Your task to perform on an android device: Clear the cart on amazon. Add logitech g933 to the cart on amazon, then select checkout. Image 0: 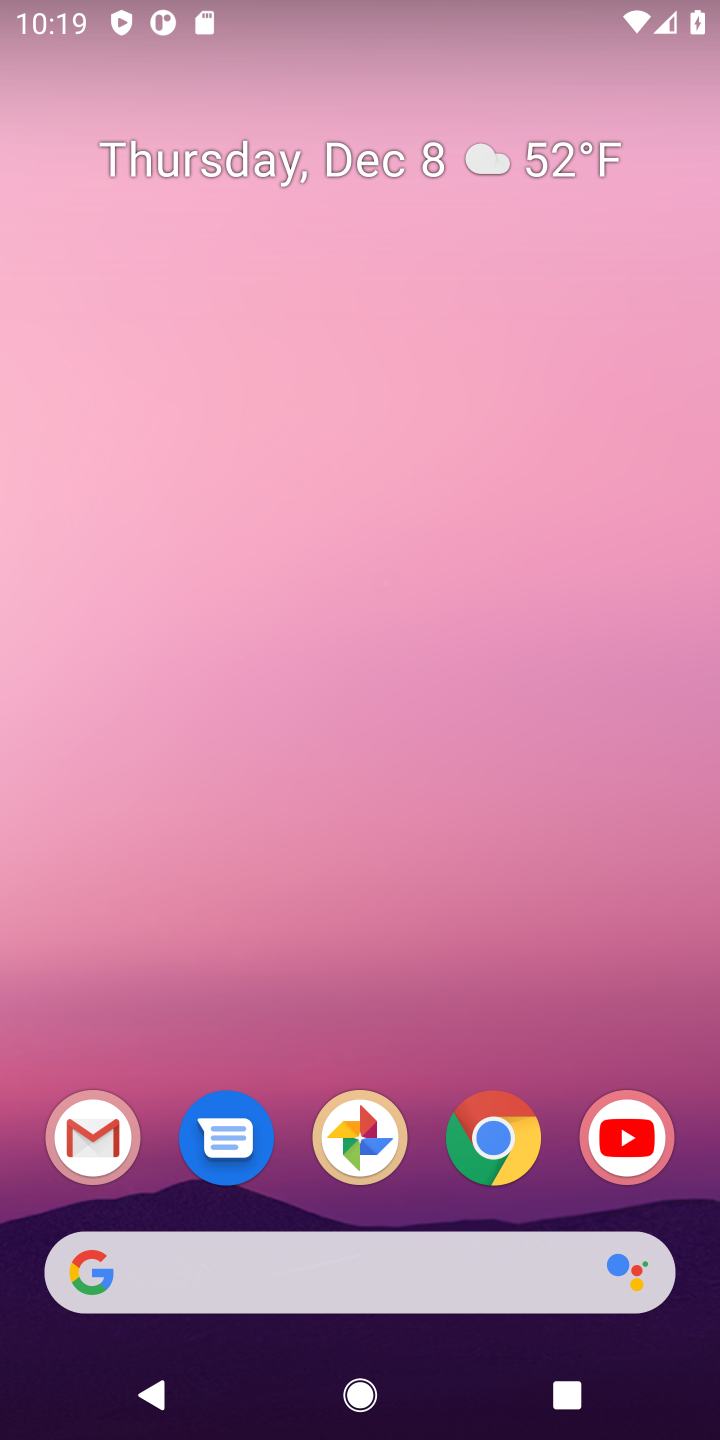
Step 0: click (508, 1119)
Your task to perform on an android device: Clear the cart on amazon. Add logitech g933 to the cart on amazon, then select checkout. Image 1: 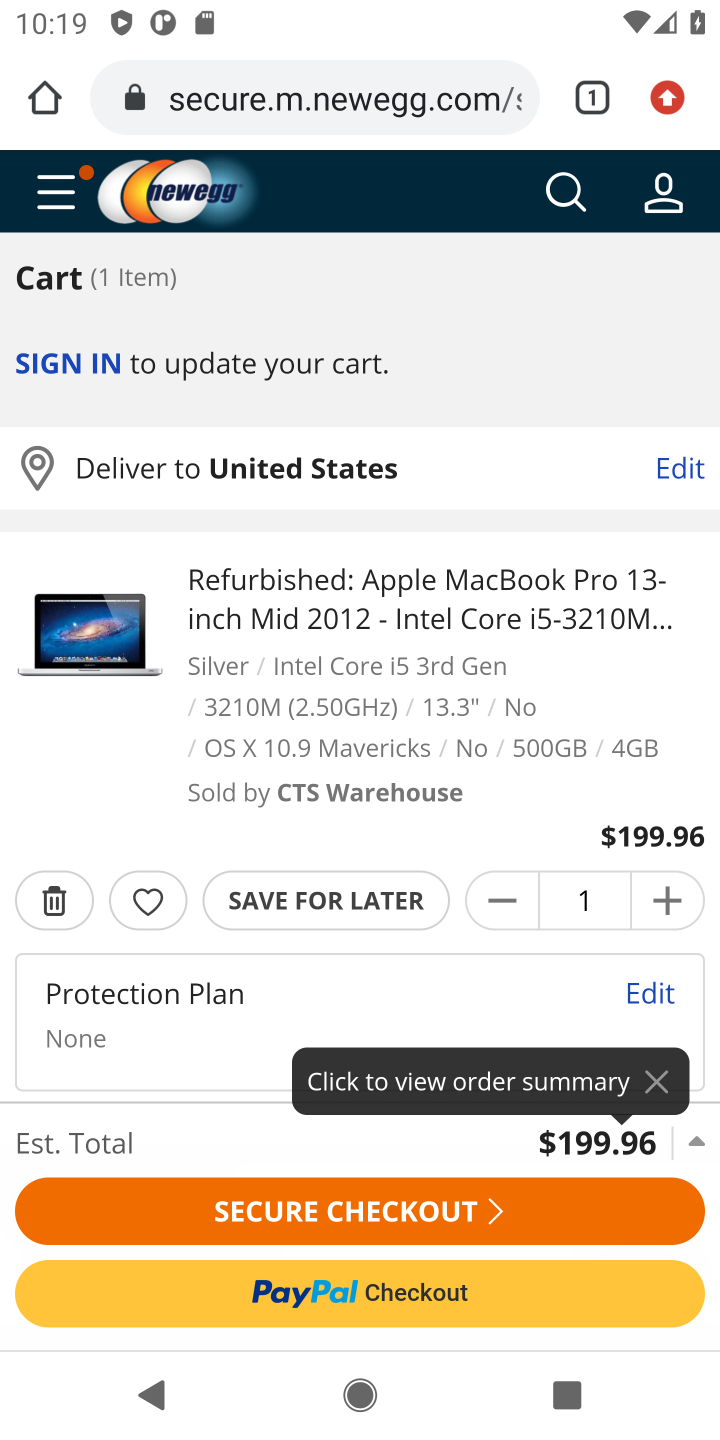
Step 1: click (325, 94)
Your task to perform on an android device: Clear the cart on amazon. Add logitech g933 to the cart on amazon, then select checkout. Image 2: 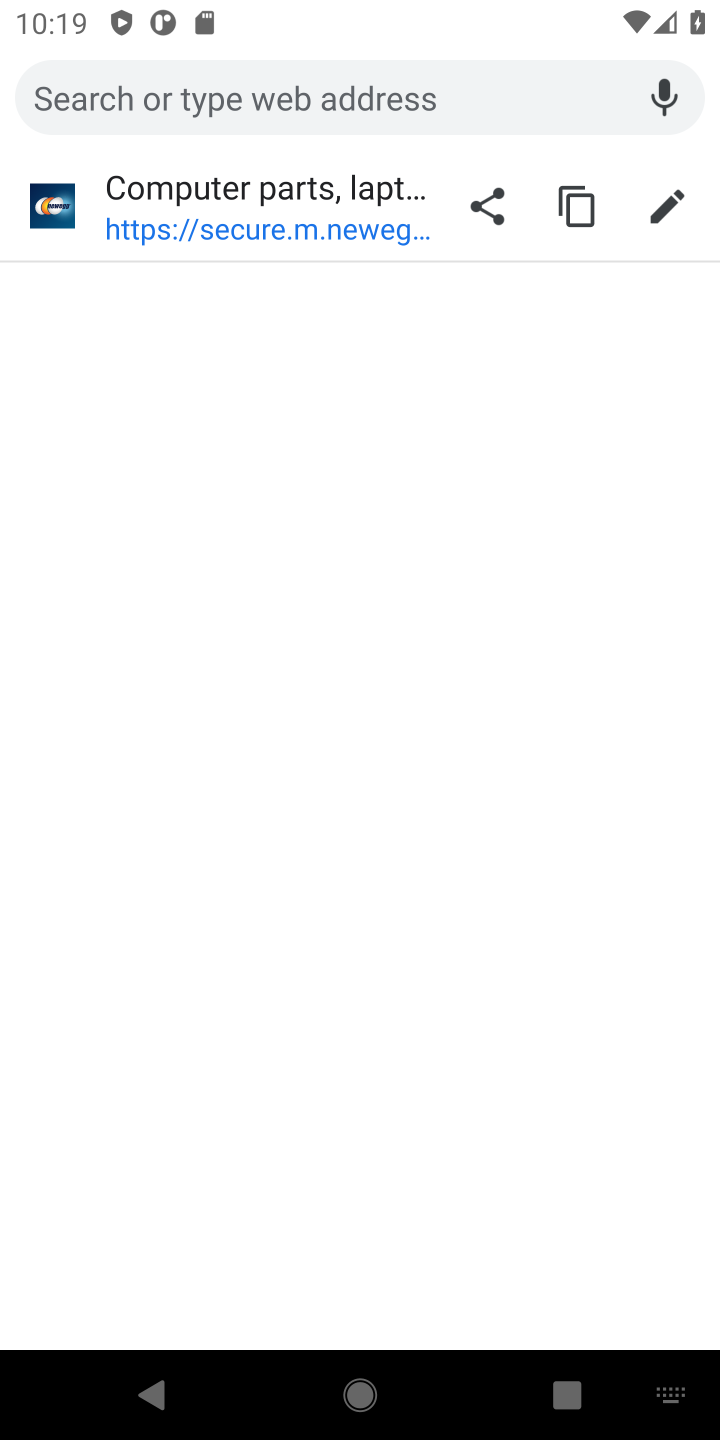
Step 2: type "amazon"
Your task to perform on an android device: Clear the cart on amazon. Add logitech g933 to the cart on amazon, then select checkout. Image 3: 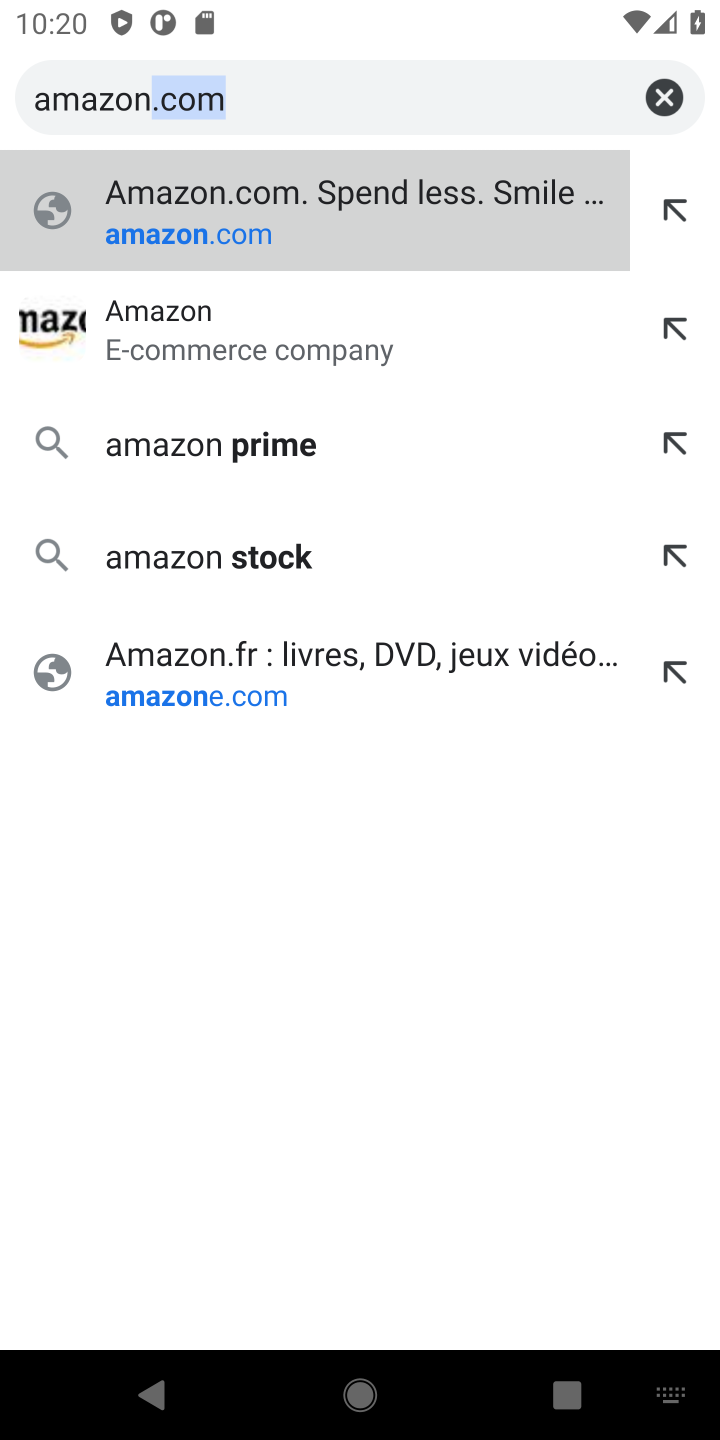
Step 3: click (315, 96)
Your task to perform on an android device: Clear the cart on amazon. Add logitech g933 to the cart on amazon, then select checkout. Image 4: 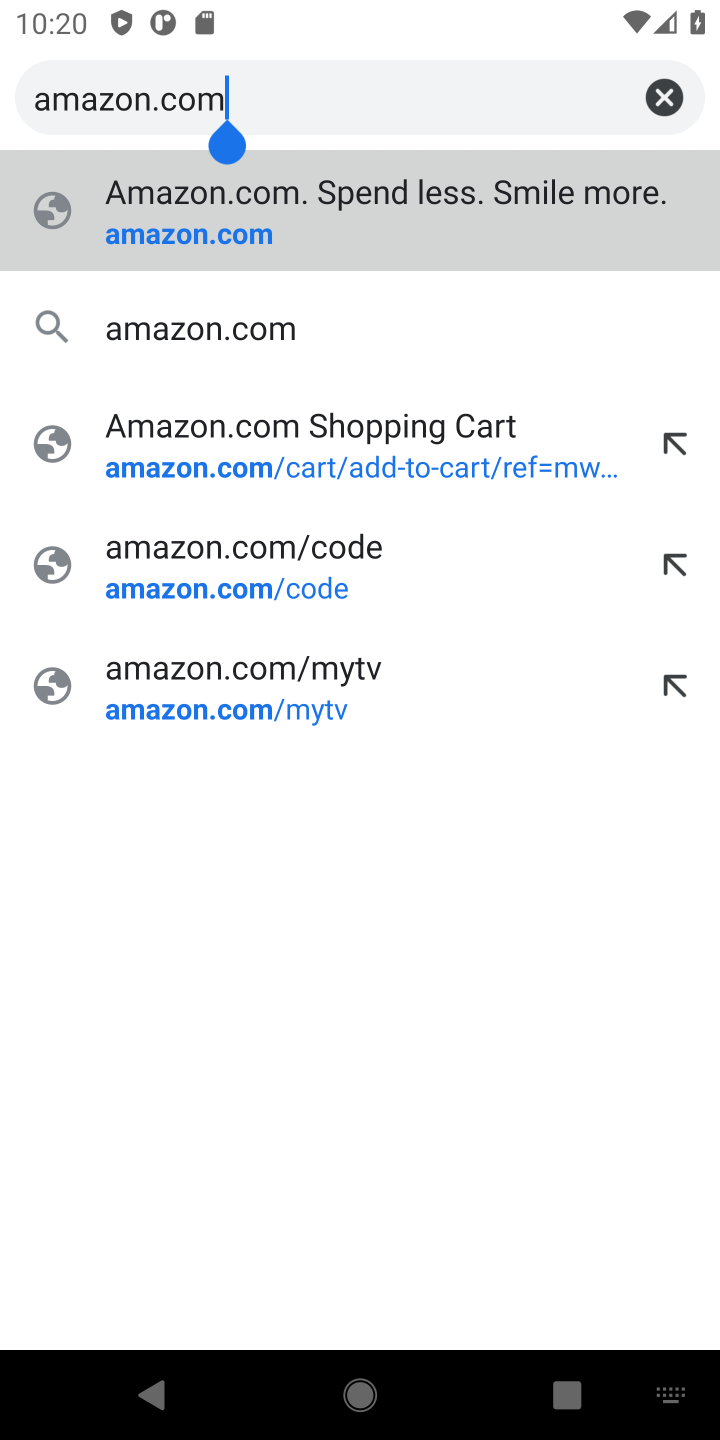
Step 4: click (266, 328)
Your task to perform on an android device: Clear the cart on amazon. Add logitech g933 to the cart on amazon, then select checkout. Image 5: 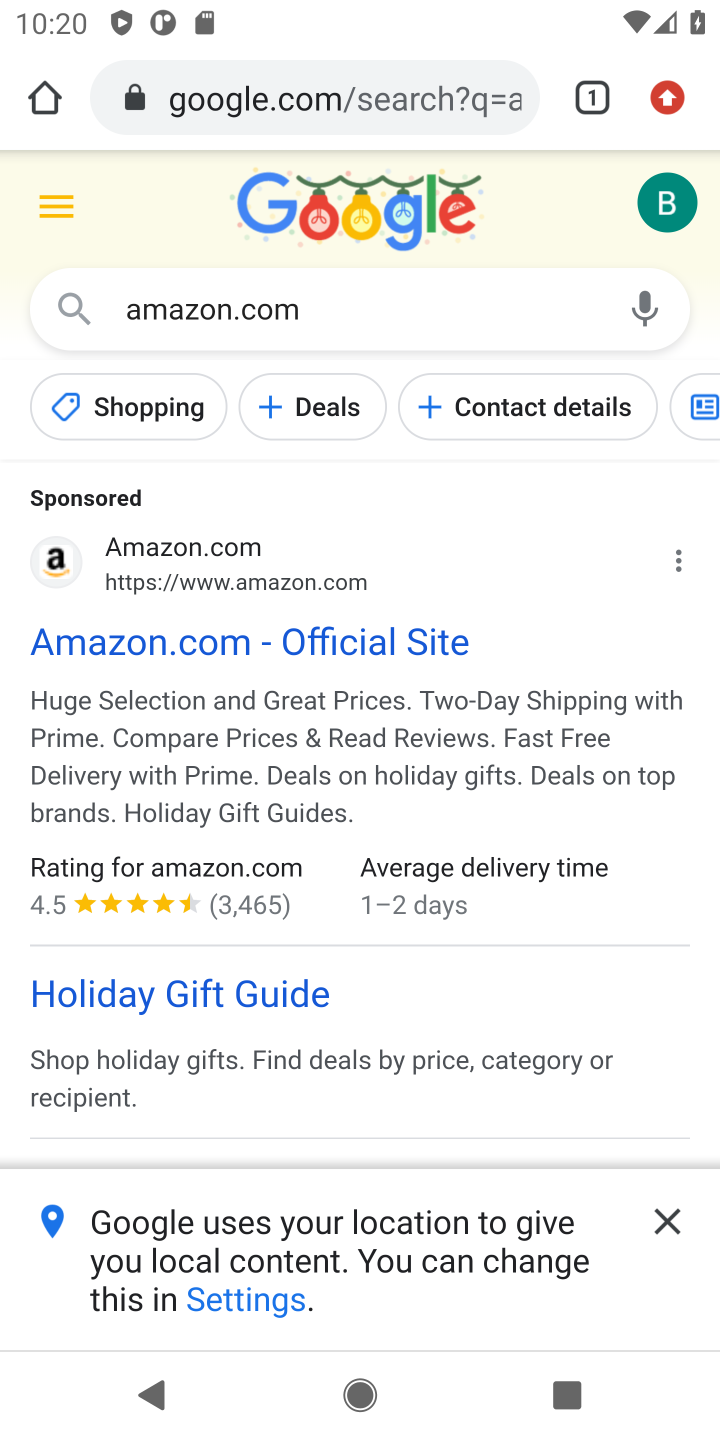
Step 5: drag from (416, 1048) to (463, 291)
Your task to perform on an android device: Clear the cart on amazon. Add logitech g933 to the cart on amazon, then select checkout. Image 6: 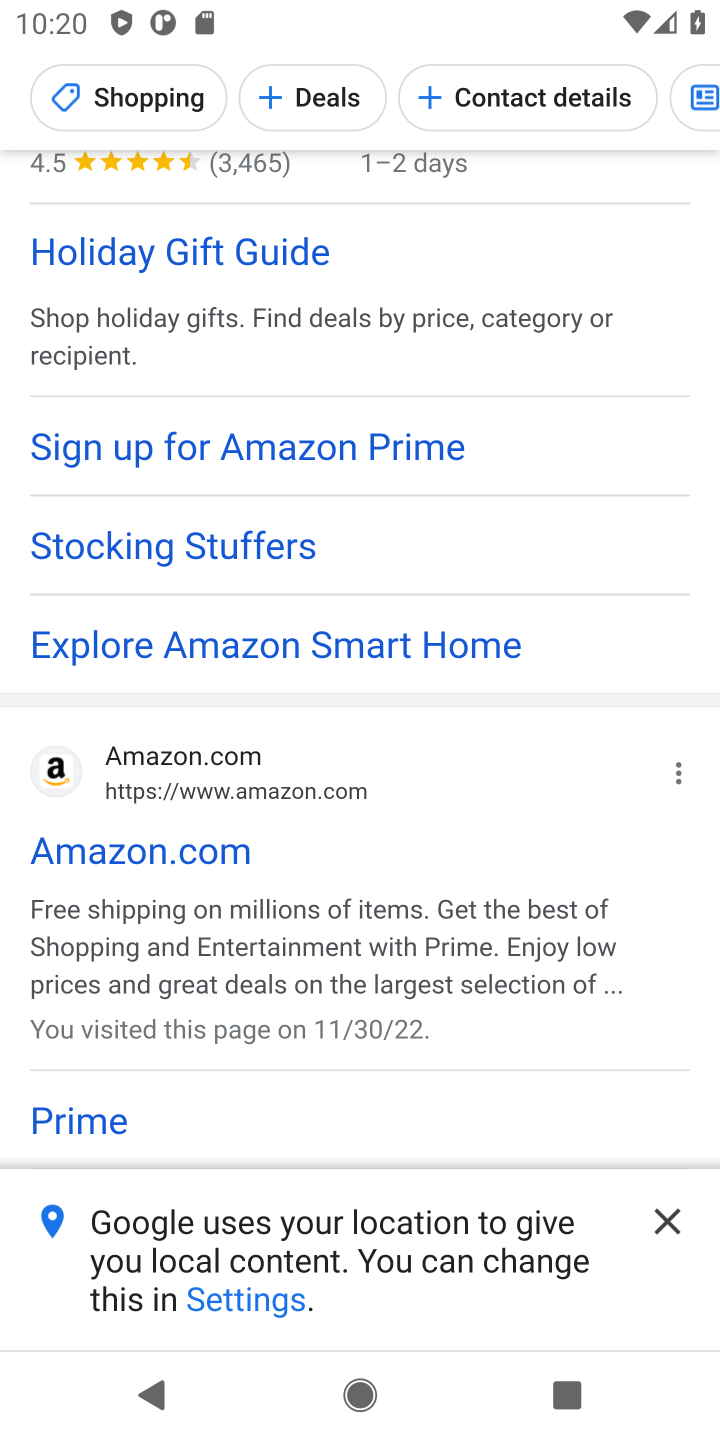
Step 6: click (263, 783)
Your task to perform on an android device: Clear the cart on amazon. Add logitech g933 to the cart on amazon, then select checkout. Image 7: 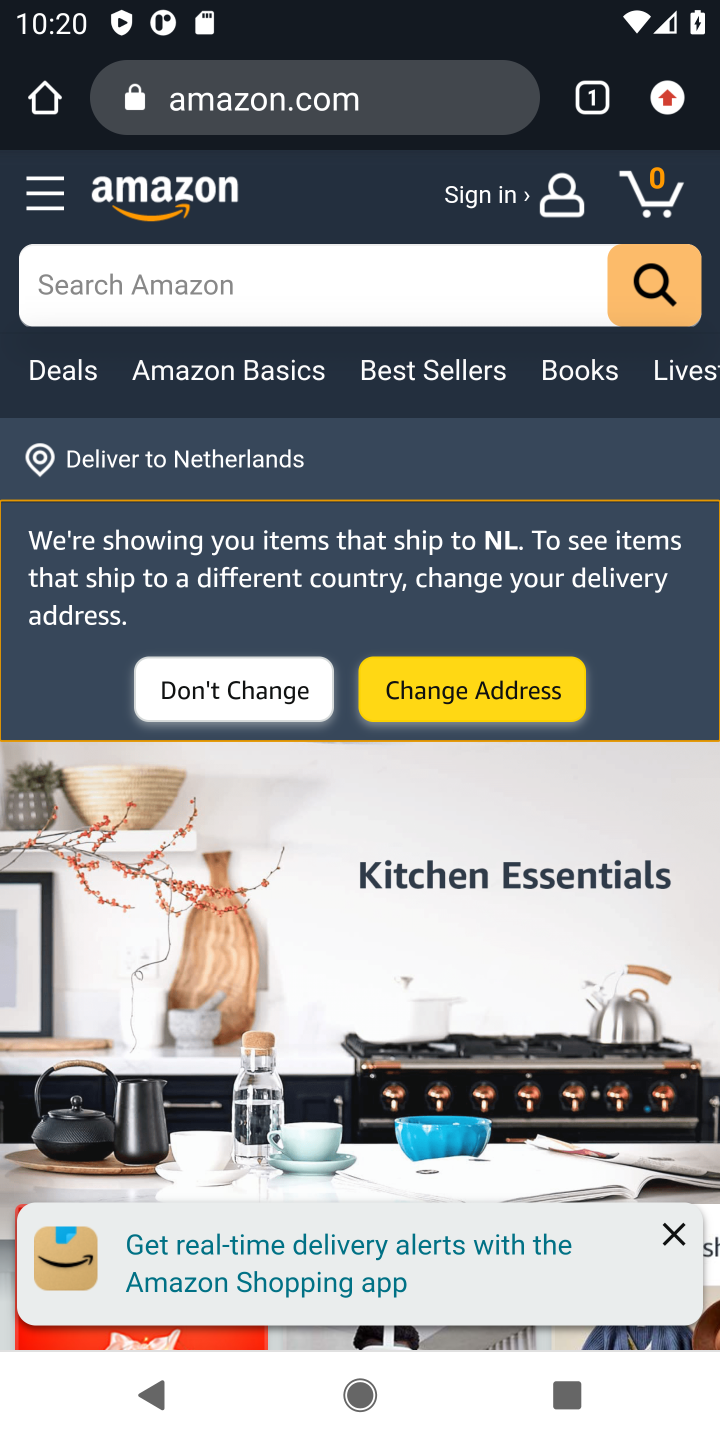
Step 7: click (539, 283)
Your task to perform on an android device: Clear the cart on amazon. Add logitech g933 to the cart on amazon, then select checkout. Image 8: 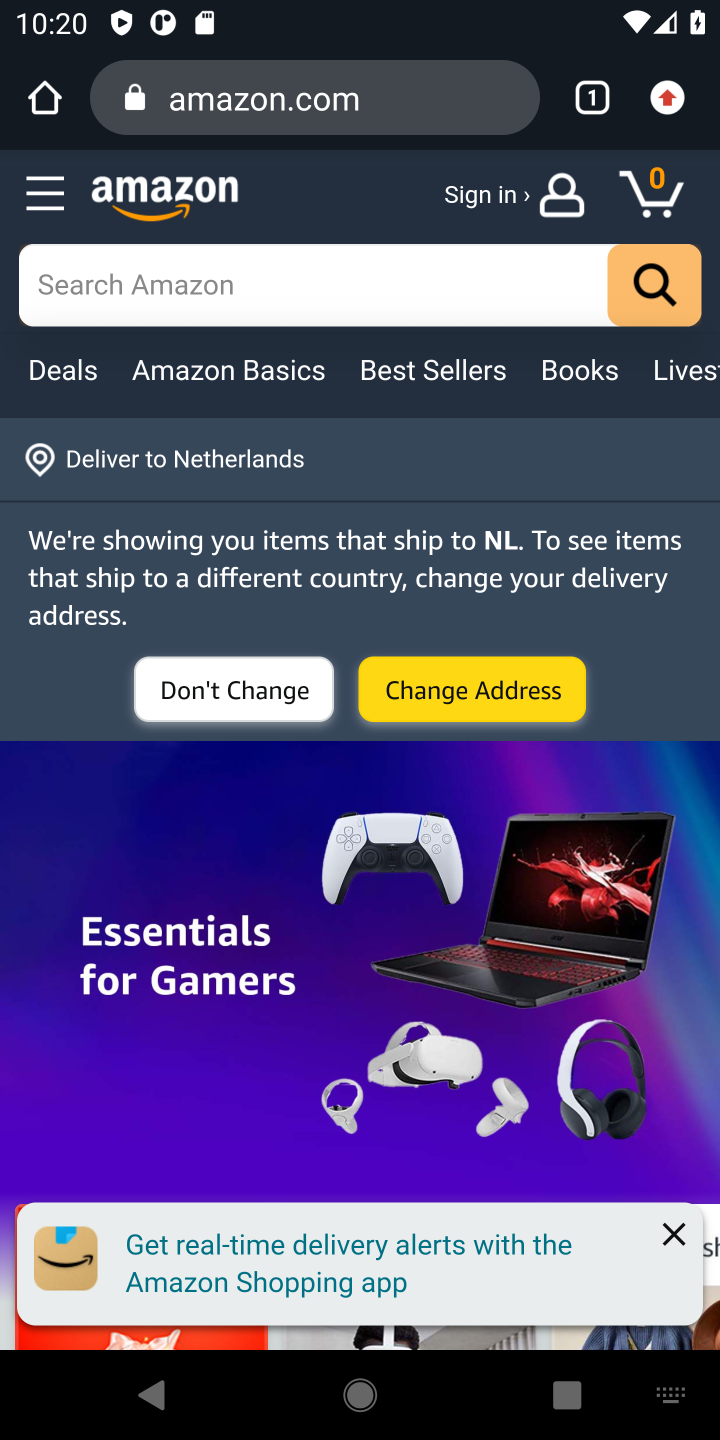
Step 8: type "logitech g933"
Your task to perform on an android device: Clear the cart on amazon. Add logitech g933 to the cart on amazon, then select checkout. Image 9: 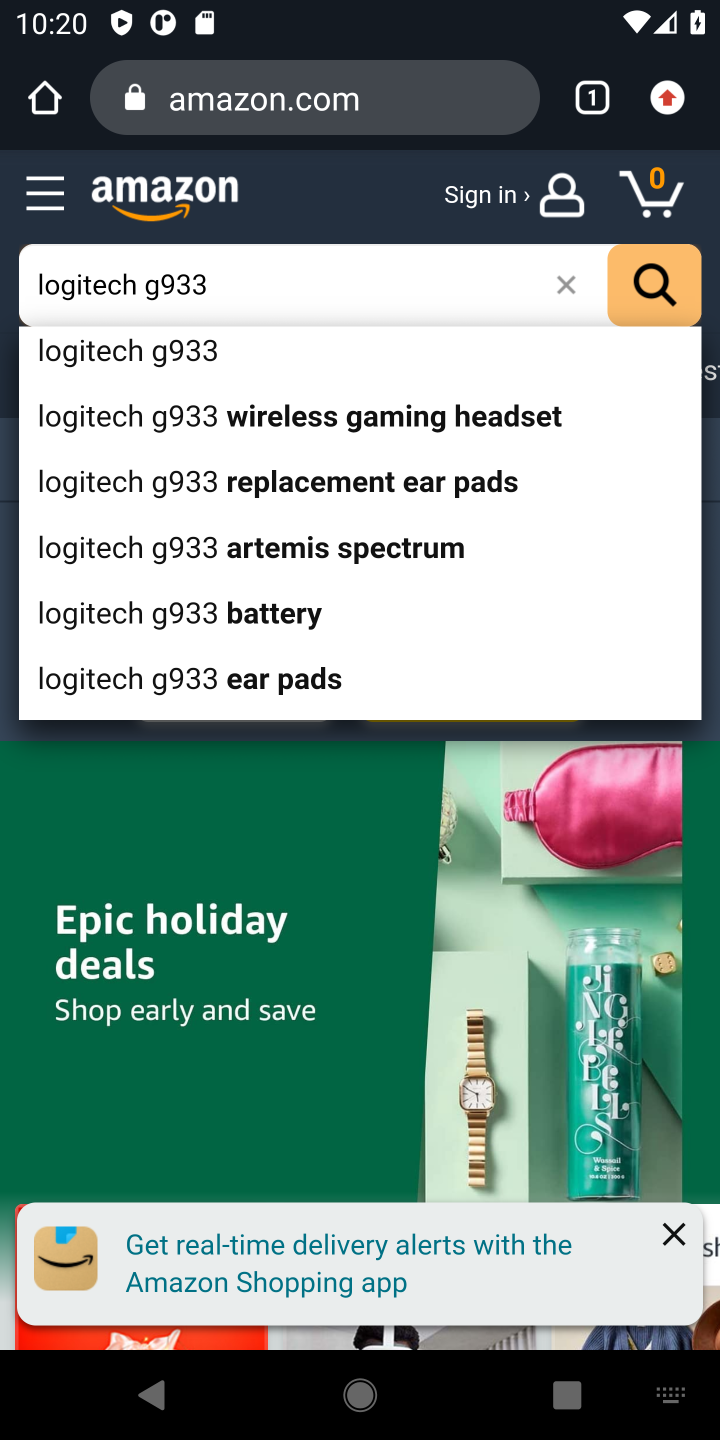
Step 9: click (198, 356)
Your task to perform on an android device: Clear the cart on amazon. Add logitech g933 to the cart on amazon, then select checkout. Image 10: 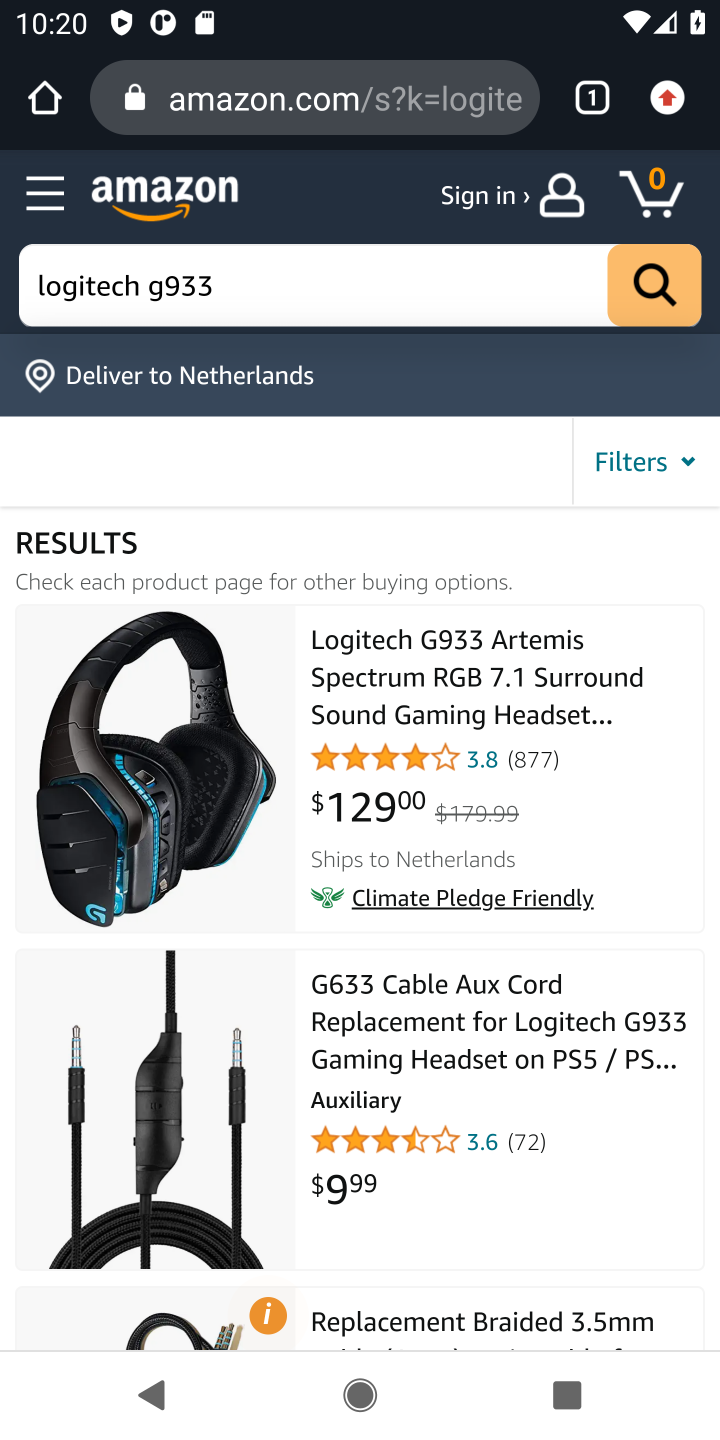
Step 10: click (231, 747)
Your task to perform on an android device: Clear the cart on amazon. Add logitech g933 to the cart on amazon, then select checkout. Image 11: 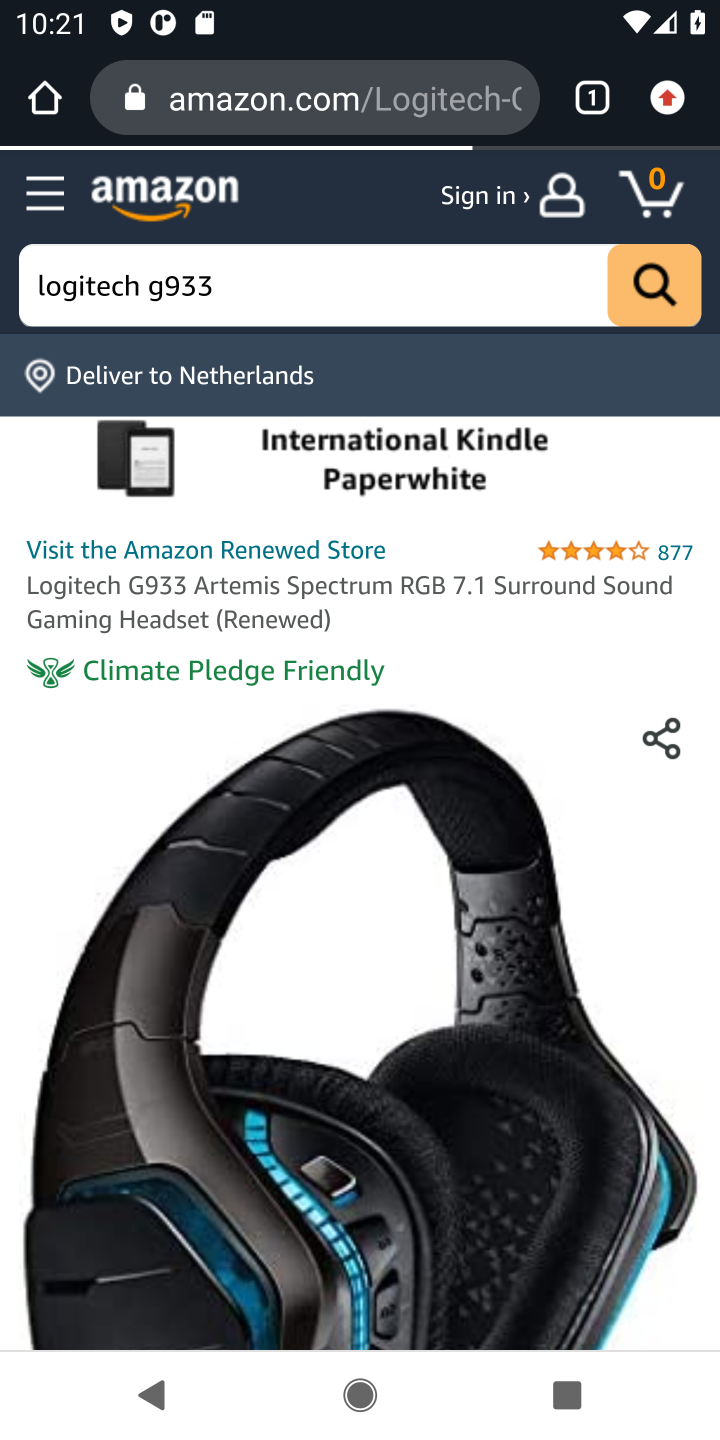
Step 11: drag from (470, 1003) to (535, 114)
Your task to perform on an android device: Clear the cart on amazon. Add logitech g933 to the cart on amazon, then select checkout. Image 12: 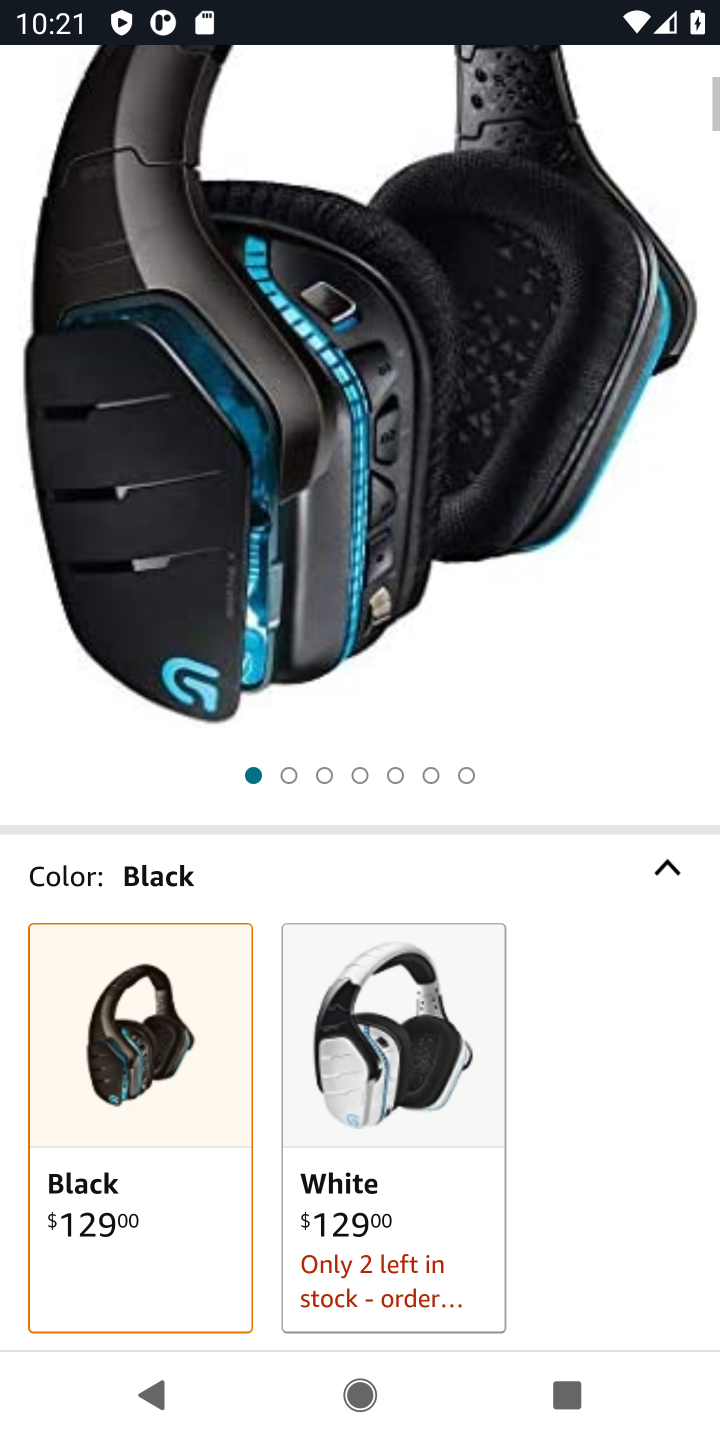
Step 12: drag from (583, 853) to (605, 262)
Your task to perform on an android device: Clear the cart on amazon. Add logitech g933 to the cart on amazon, then select checkout. Image 13: 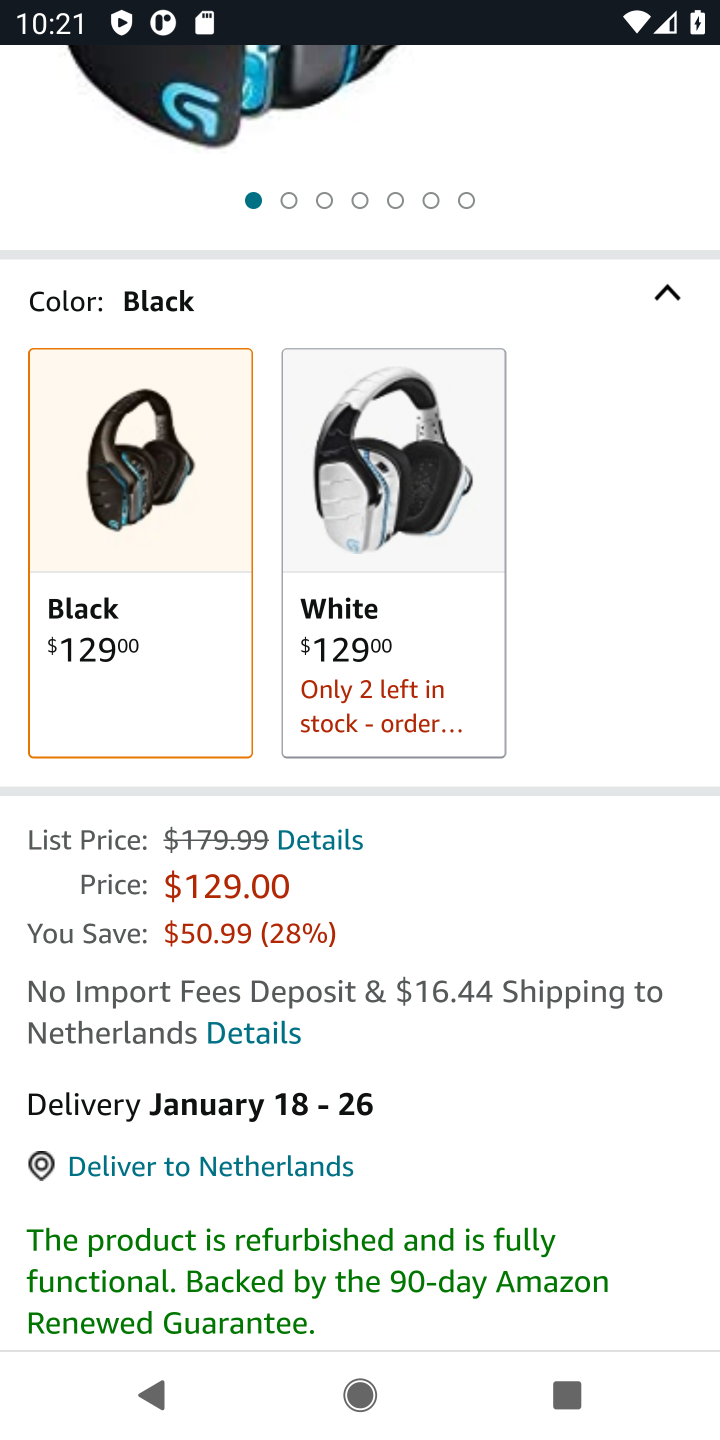
Step 13: drag from (505, 952) to (544, 225)
Your task to perform on an android device: Clear the cart on amazon. Add logitech g933 to the cart on amazon, then select checkout. Image 14: 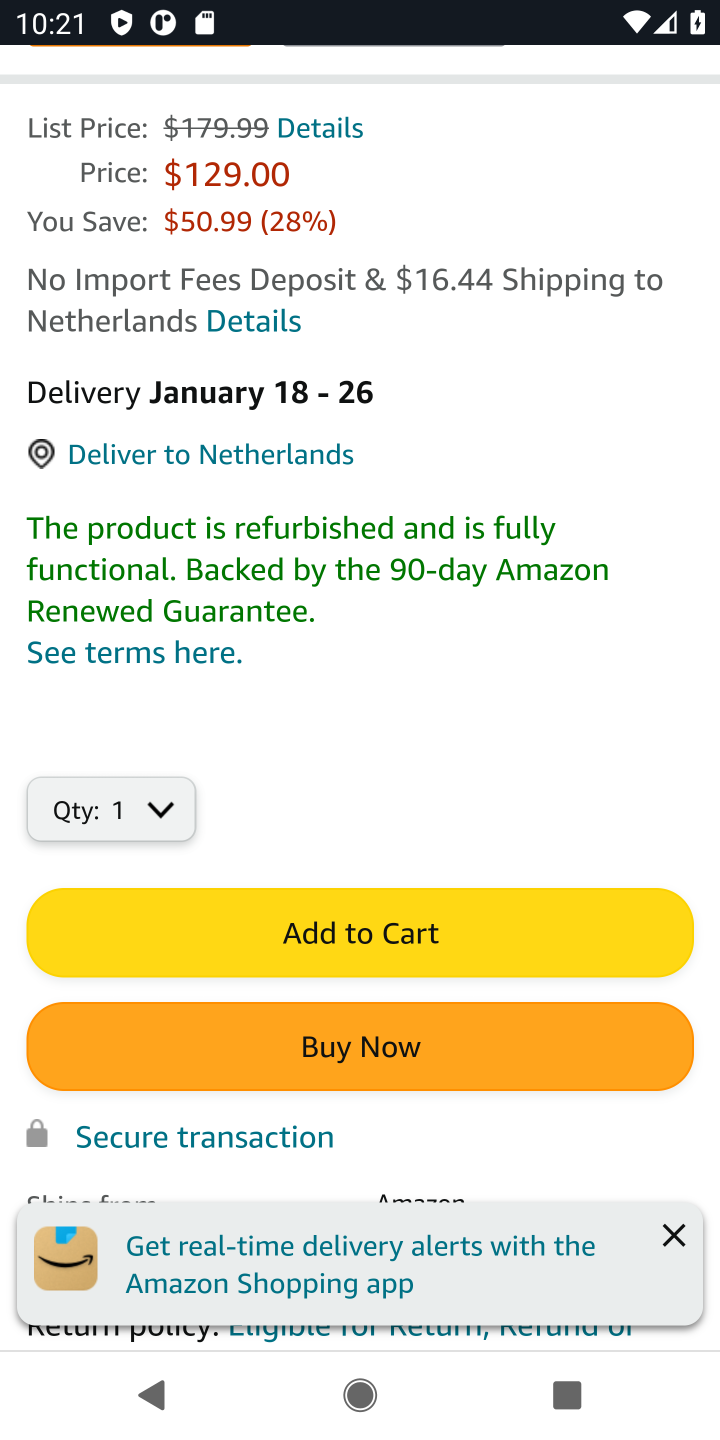
Step 14: click (417, 938)
Your task to perform on an android device: Clear the cart on amazon. Add logitech g933 to the cart on amazon, then select checkout. Image 15: 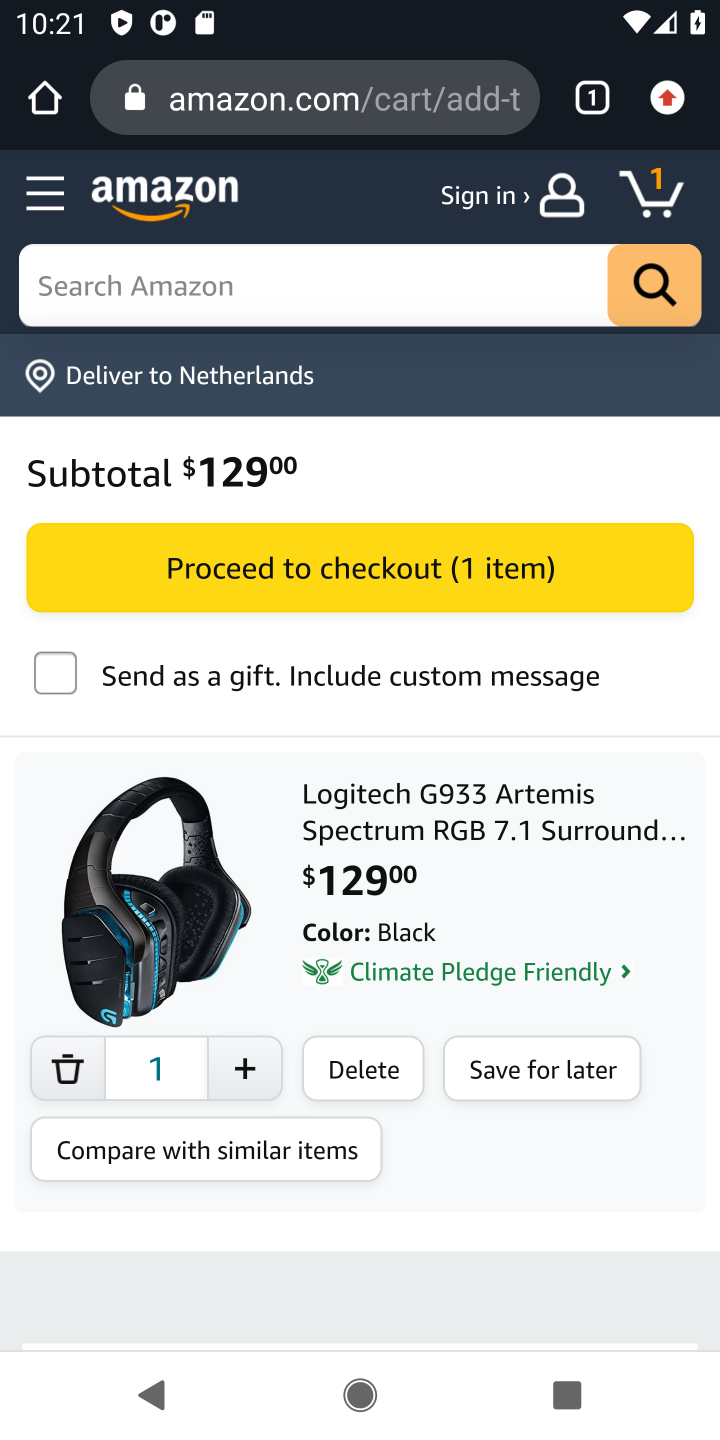
Step 15: click (326, 567)
Your task to perform on an android device: Clear the cart on amazon. Add logitech g933 to the cart on amazon, then select checkout. Image 16: 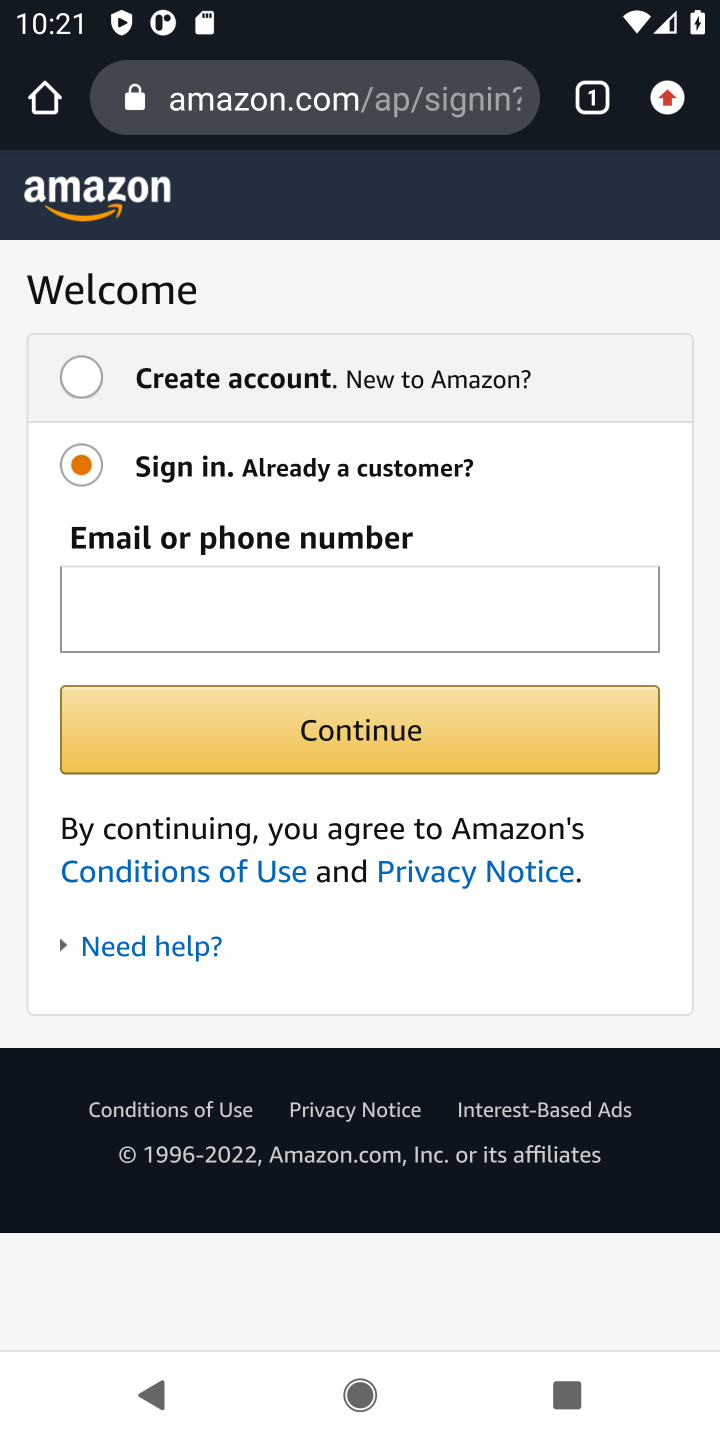
Step 16: task complete